Your task to perform on an android device: open a bookmark in the chrome app Image 0: 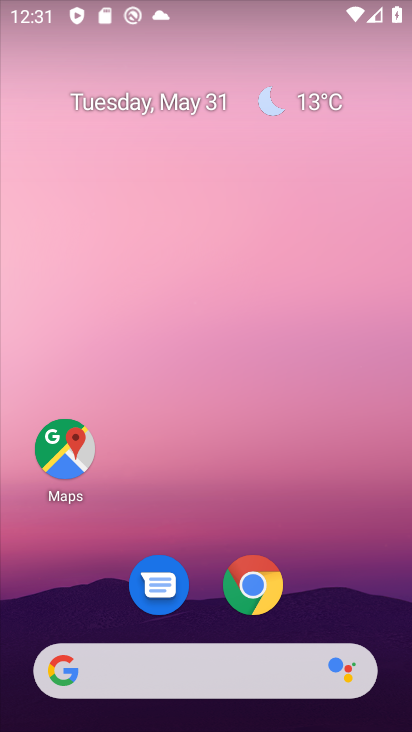
Step 0: click (265, 598)
Your task to perform on an android device: open a bookmark in the chrome app Image 1: 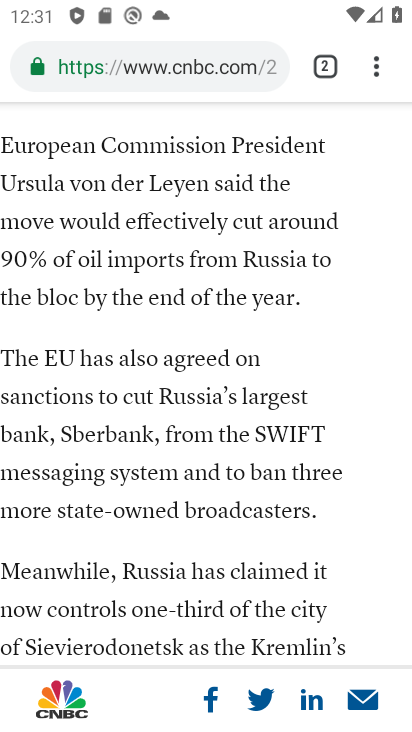
Step 1: click (372, 66)
Your task to perform on an android device: open a bookmark in the chrome app Image 2: 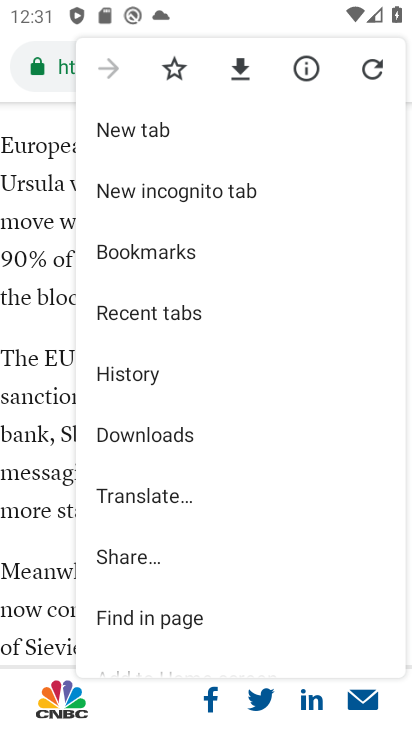
Step 2: click (293, 125)
Your task to perform on an android device: open a bookmark in the chrome app Image 3: 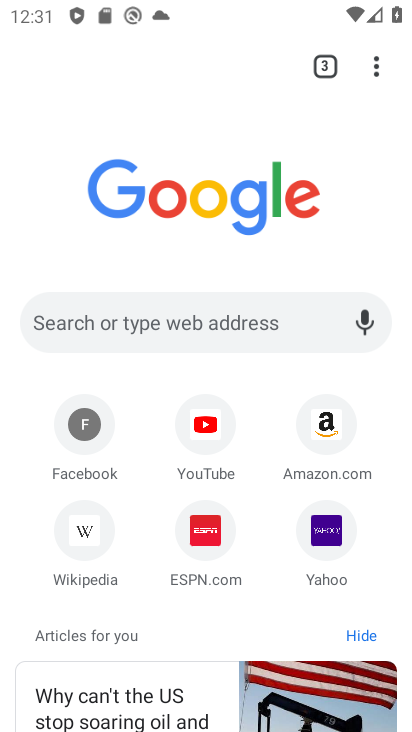
Step 3: click (376, 70)
Your task to perform on an android device: open a bookmark in the chrome app Image 4: 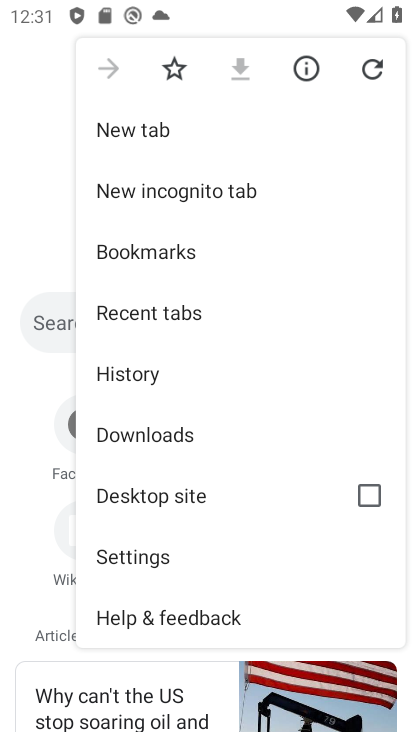
Step 4: click (184, 257)
Your task to perform on an android device: open a bookmark in the chrome app Image 5: 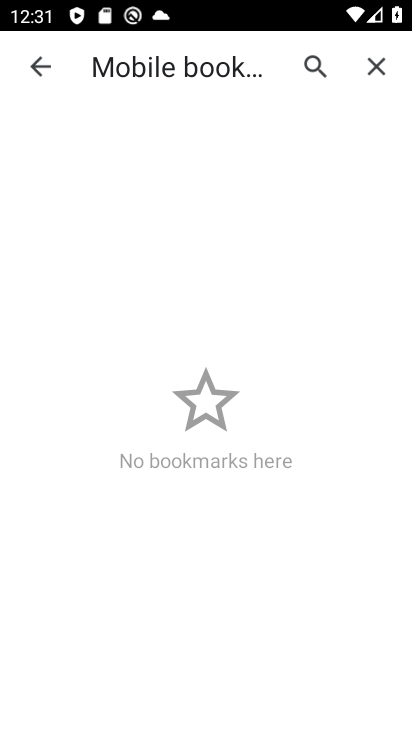
Step 5: task complete